Your task to perform on an android device: Go to battery settings Image 0: 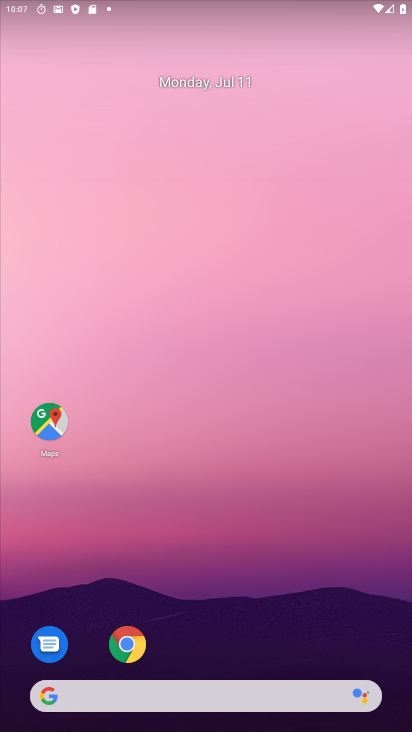
Step 0: drag from (235, 646) to (237, 261)
Your task to perform on an android device: Go to battery settings Image 1: 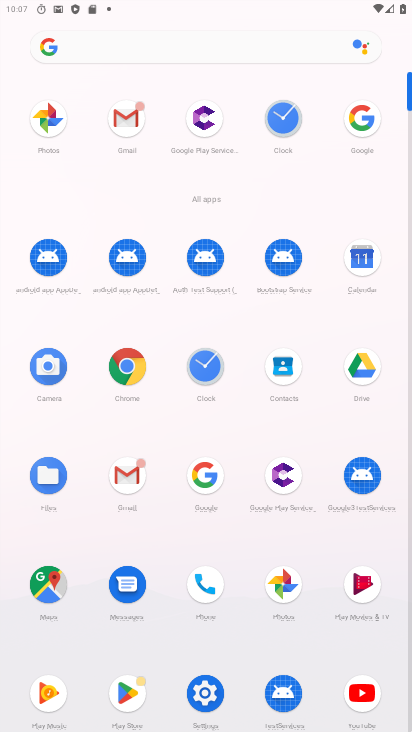
Step 1: click (213, 689)
Your task to perform on an android device: Go to battery settings Image 2: 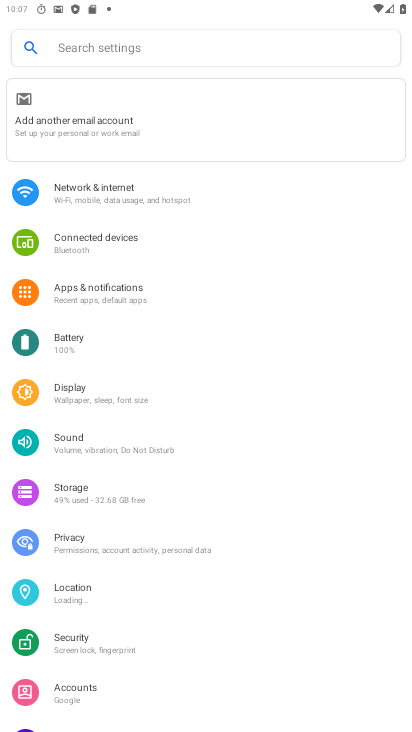
Step 2: click (95, 350)
Your task to perform on an android device: Go to battery settings Image 3: 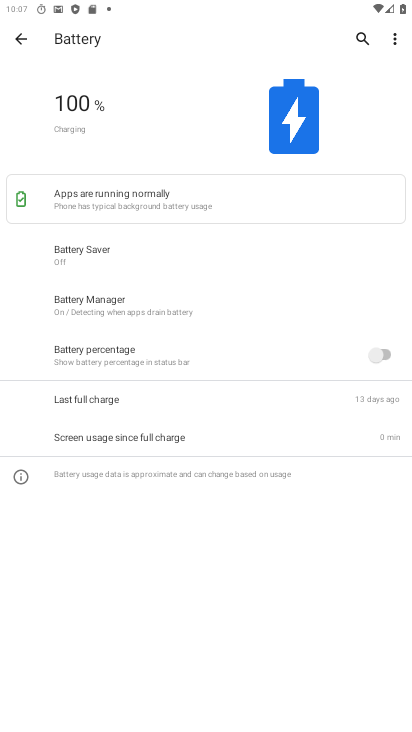
Step 3: click (392, 39)
Your task to perform on an android device: Go to battery settings Image 4: 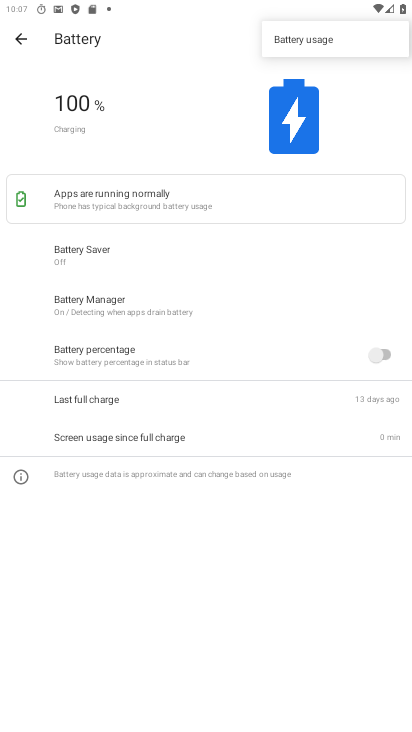
Step 4: click (194, 84)
Your task to perform on an android device: Go to battery settings Image 5: 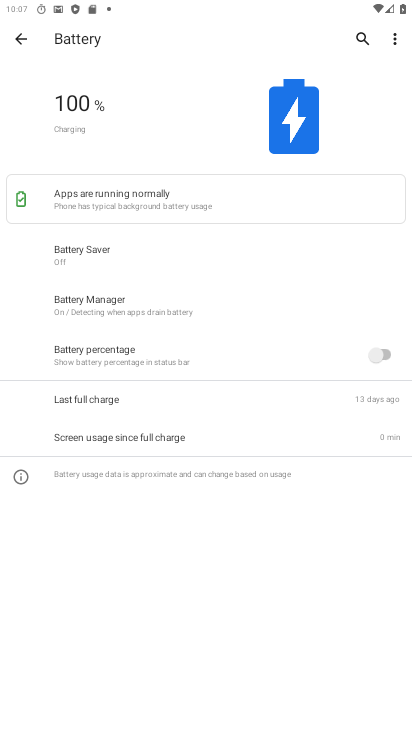
Step 5: task complete